Your task to perform on an android device: read, delete, or share a saved page in the chrome app Image 0: 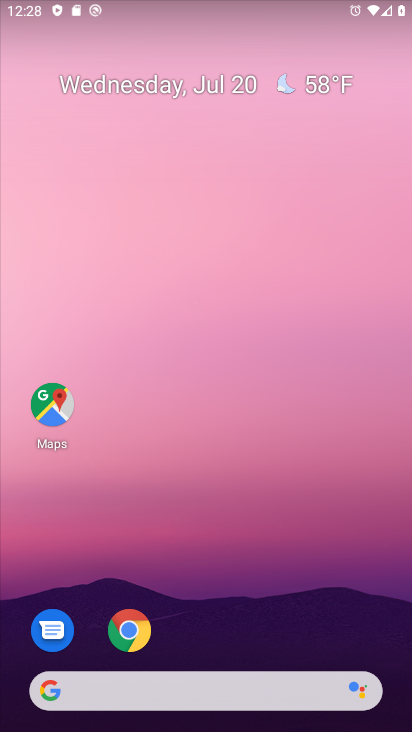
Step 0: press home button
Your task to perform on an android device: read, delete, or share a saved page in the chrome app Image 1: 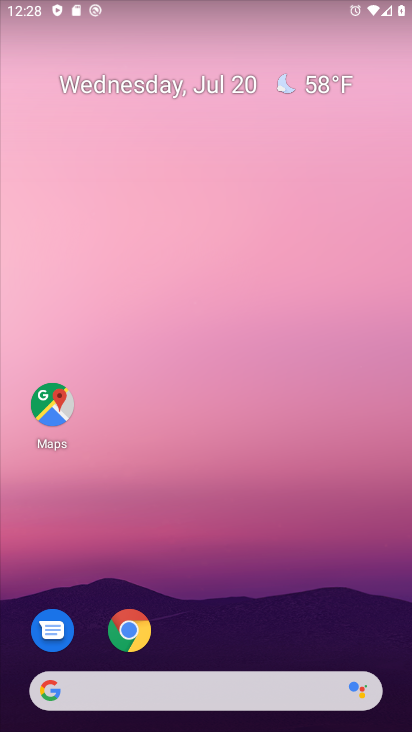
Step 1: click (126, 631)
Your task to perform on an android device: read, delete, or share a saved page in the chrome app Image 2: 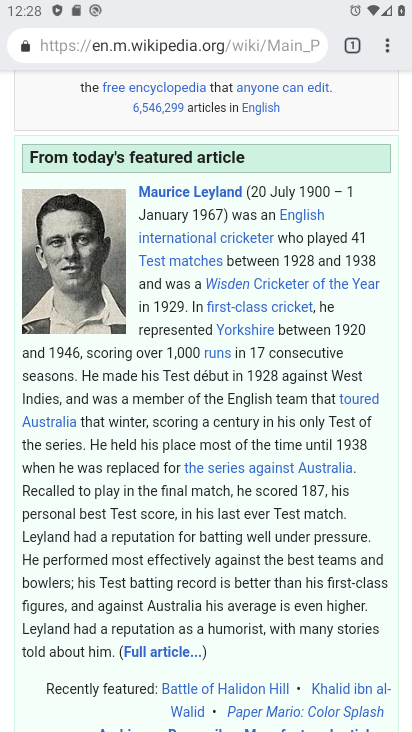
Step 2: drag from (385, 45) to (280, 293)
Your task to perform on an android device: read, delete, or share a saved page in the chrome app Image 3: 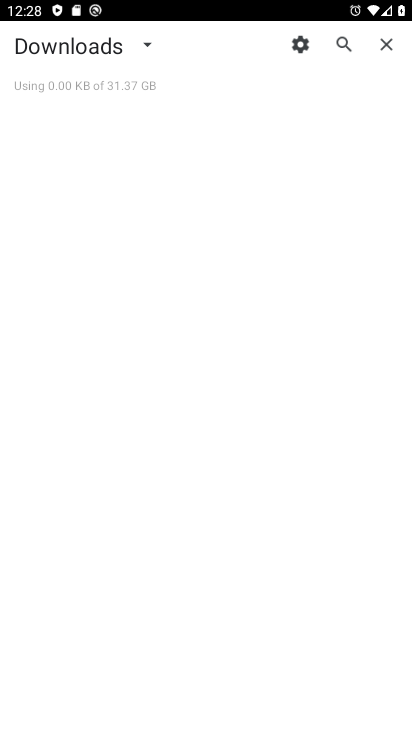
Step 3: click (126, 44)
Your task to perform on an android device: read, delete, or share a saved page in the chrome app Image 4: 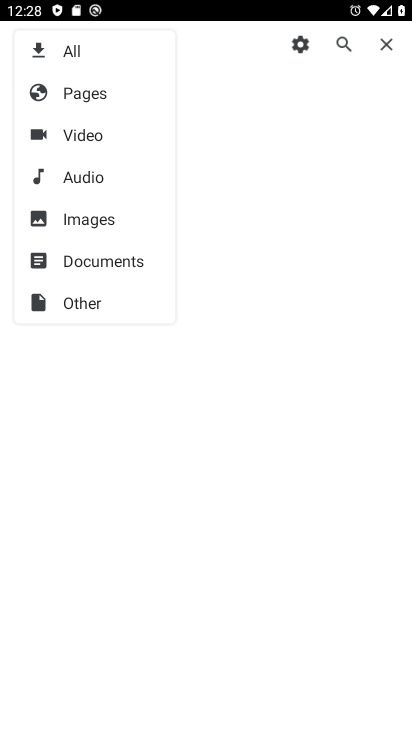
Step 4: click (89, 93)
Your task to perform on an android device: read, delete, or share a saved page in the chrome app Image 5: 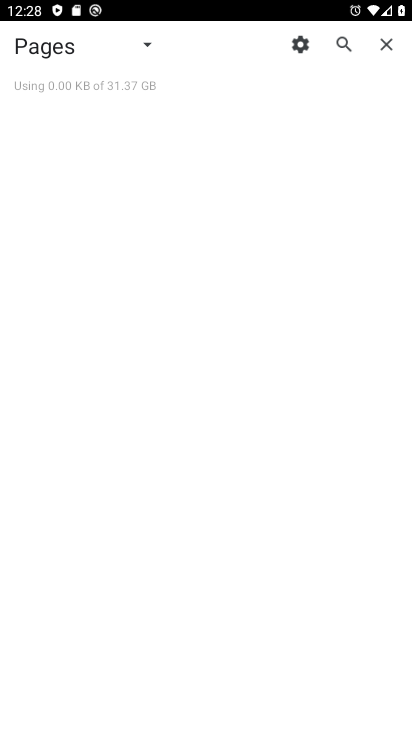
Step 5: task complete